Your task to perform on an android device: Check the settings for the Instagram app Image 0: 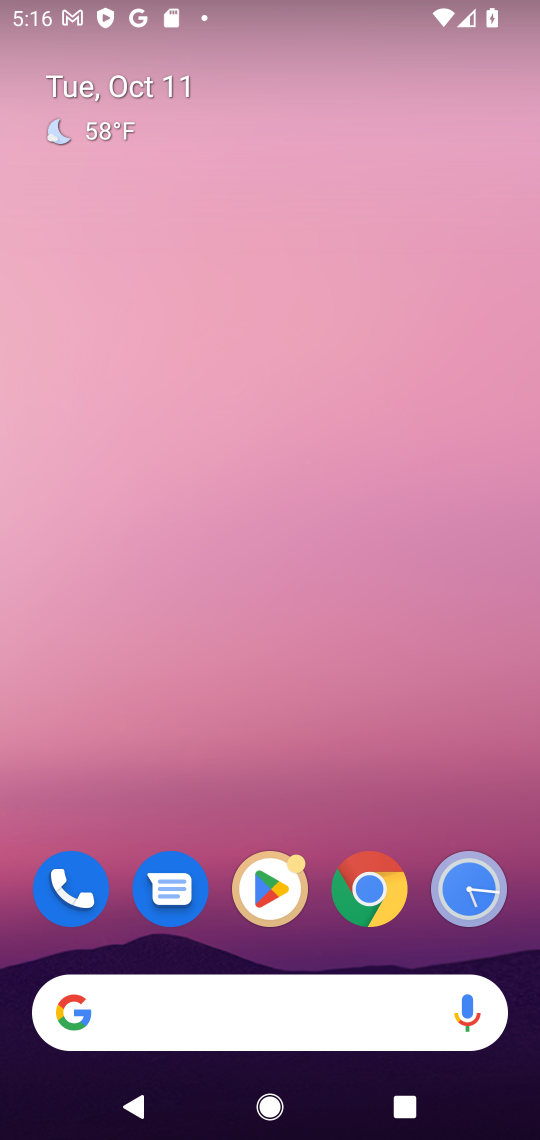
Step 0: drag from (344, 940) to (301, 341)
Your task to perform on an android device: Check the settings for the Instagram app Image 1: 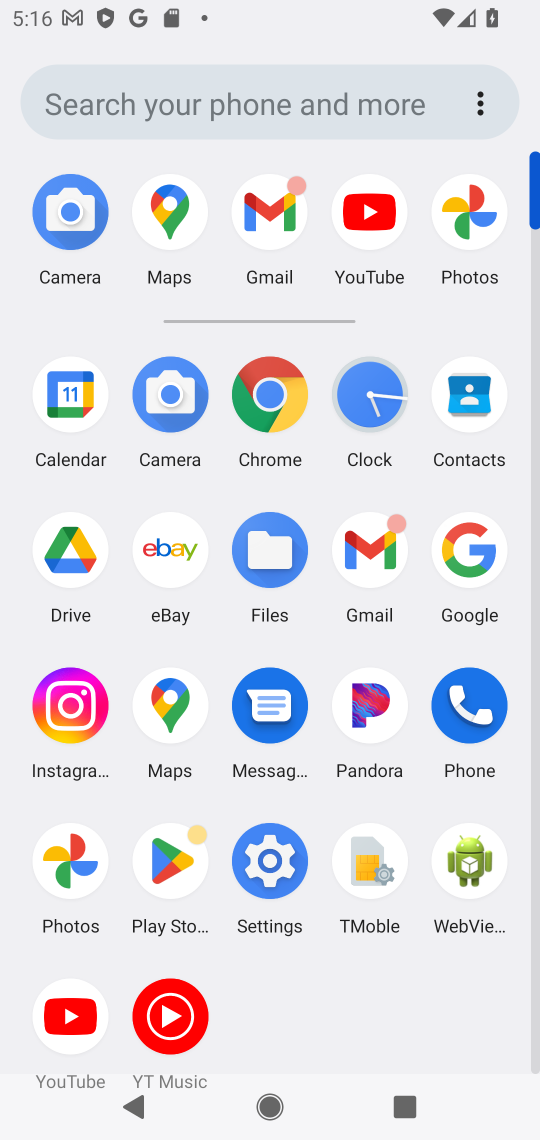
Step 1: click (77, 693)
Your task to perform on an android device: Check the settings for the Instagram app Image 2: 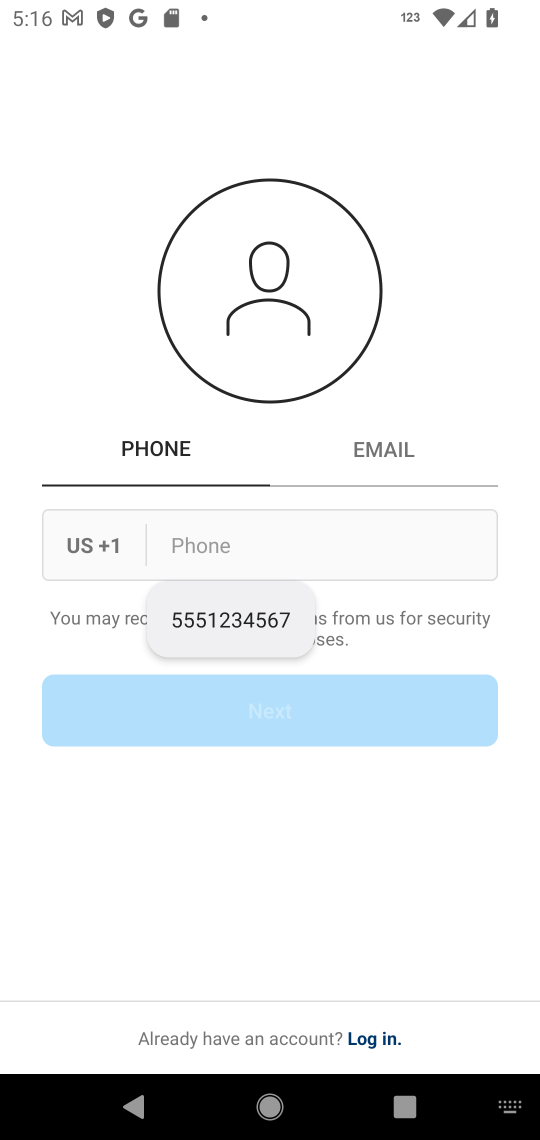
Step 2: click (166, 614)
Your task to perform on an android device: Check the settings for the Instagram app Image 3: 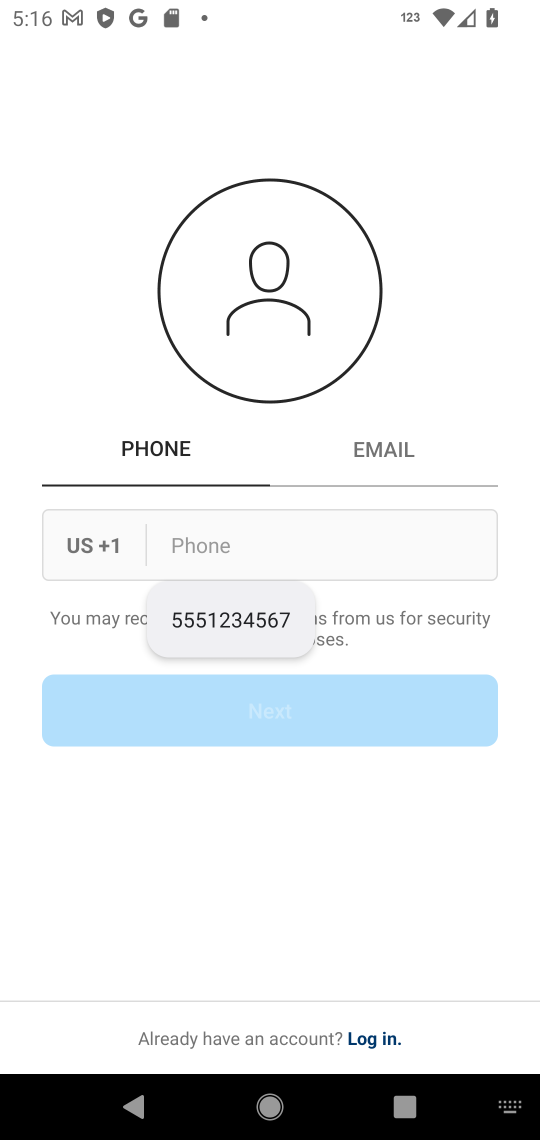
Step 3: click (177, 614)
Your task to perform on an android device: Check the settings for the Instagram app Image 4: 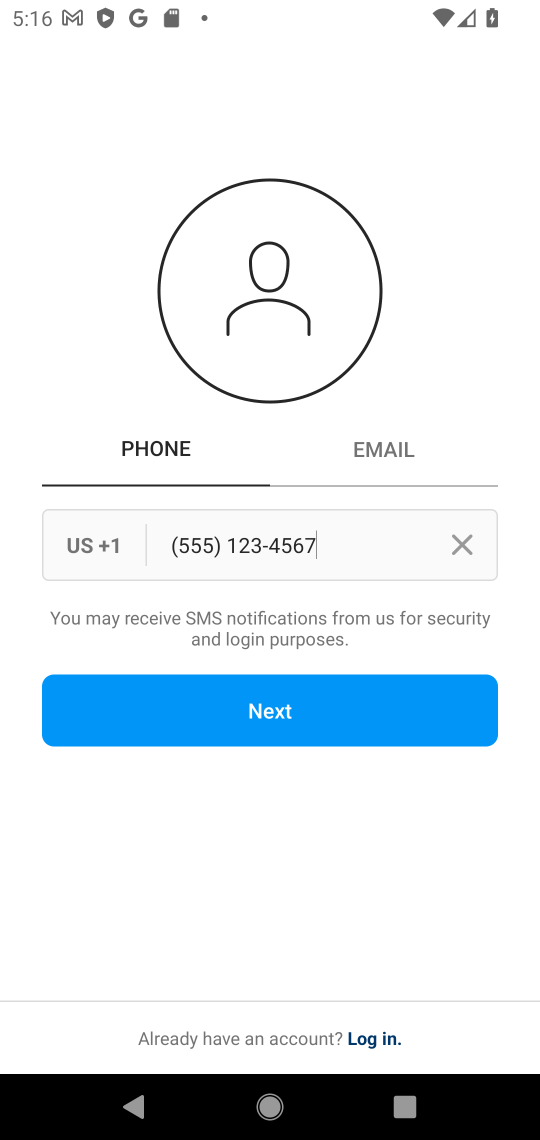
Step 4: click (207, 608)
Your task to perform on an android device: Check the settings for the Instagram app Image 5: 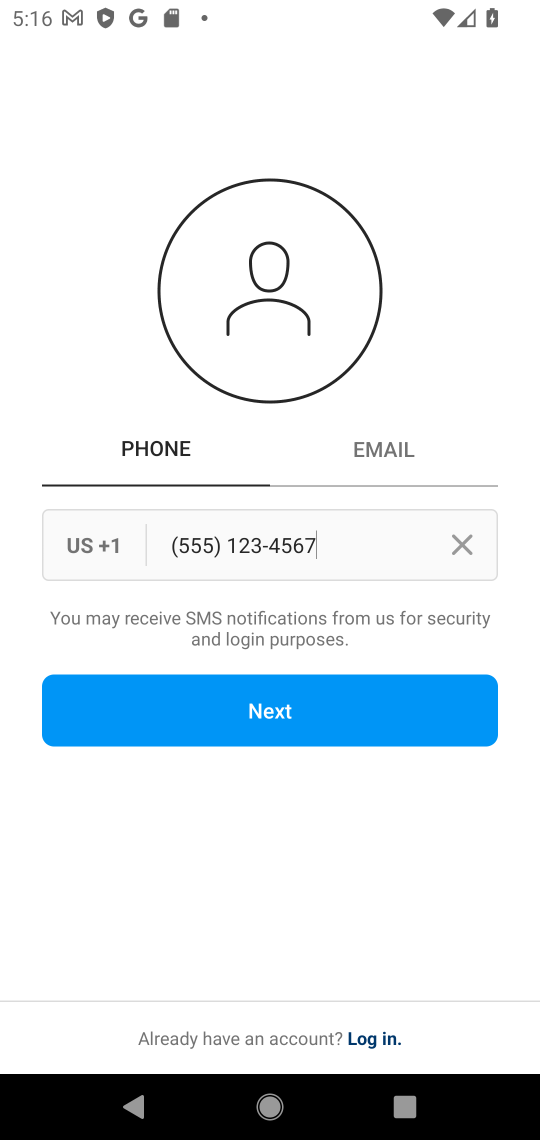
Step 5: click (248, 706)
Your task to perform on an android device: Check the settings for the Instagram app Image 6: 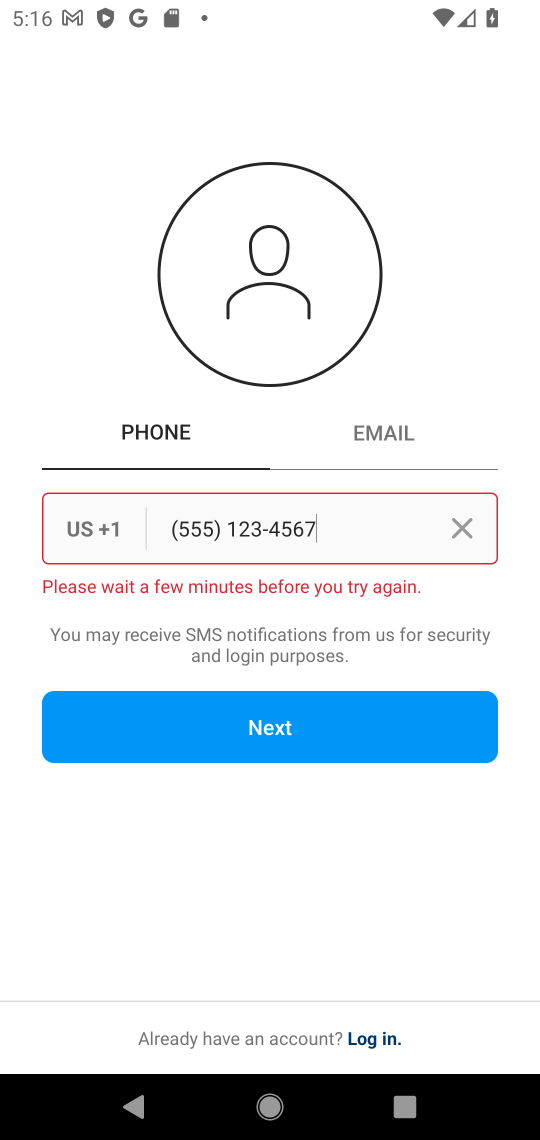
Step 6: click (248, 706)
Your task to perform on an android device: Check the settings for the Instagram app Image 7: 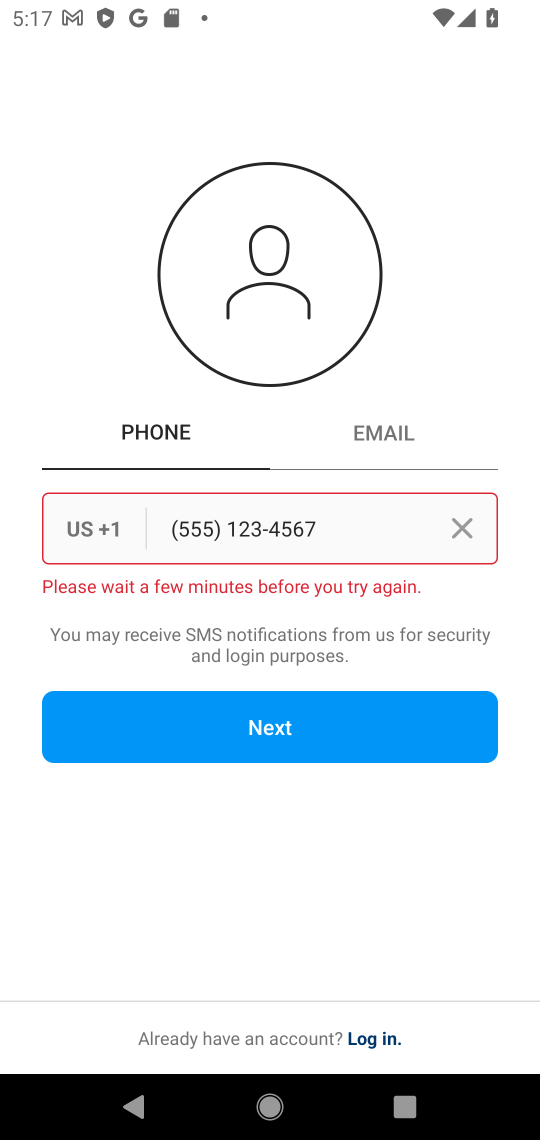
Step 7: task complete